Your task to perform on an android device: Open Youtube and go to the subscriptions tab Image 0: 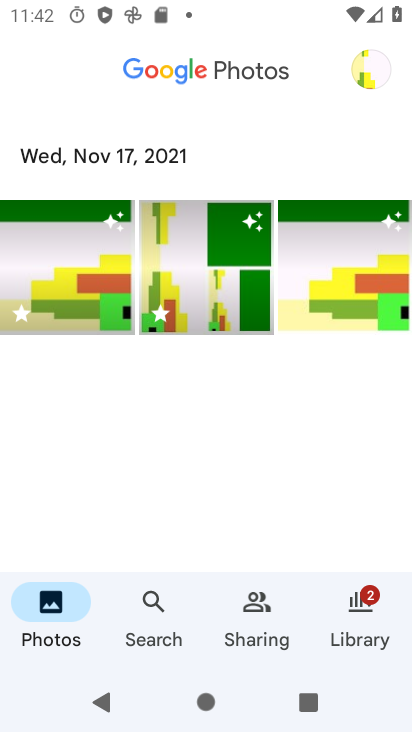
Step 0: press home button
Your task to perform on an android device: Open Youtube and go to the subscriptions tab Image 1: 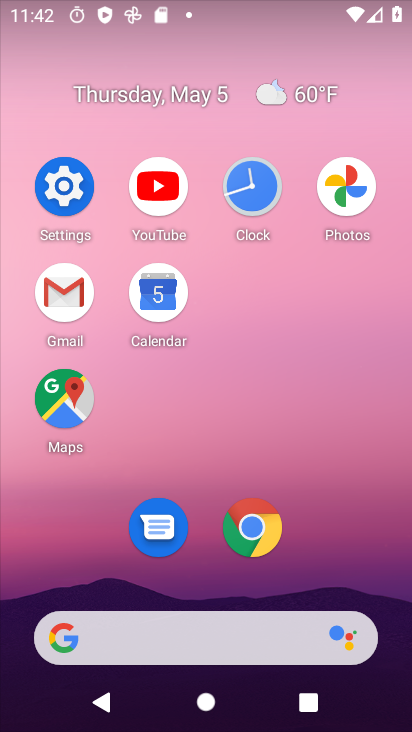
Step 1: drag from (315, 498) to (270, 36)
Your task to perform on an android device: Open Youtube and go to the subscriptions tab Image 2: 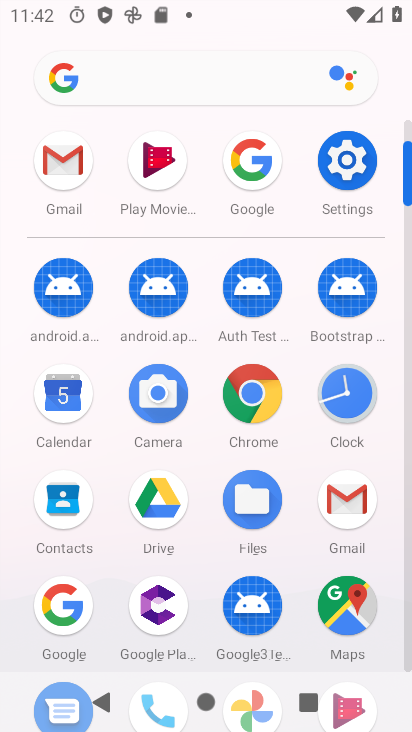
Step 2: drag from (235, 524) to (266, 169)
Your task to perform on an android device: Open Youtube and go to the subscriptions tab Image 3: 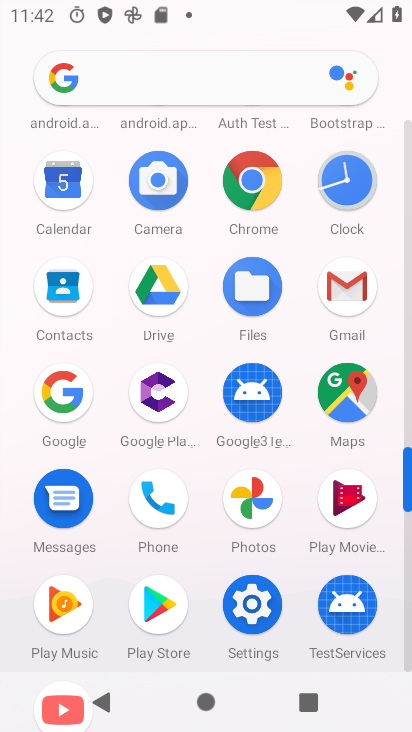
Step 3: click (57, 706)
Your task to perform on an android device: Open Youtube and go to the subscriptions tab Image 4: 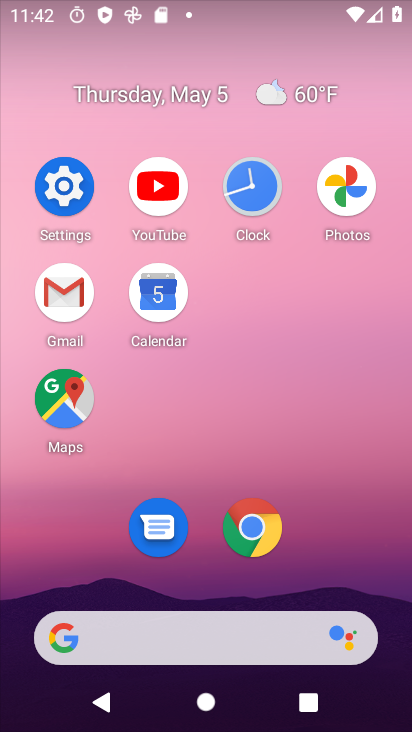
Step 4: drag from (300, 573) to (306, 150)
Your task to perform on an android device: Open Youtube and go to the subscriptions tab Image 5: 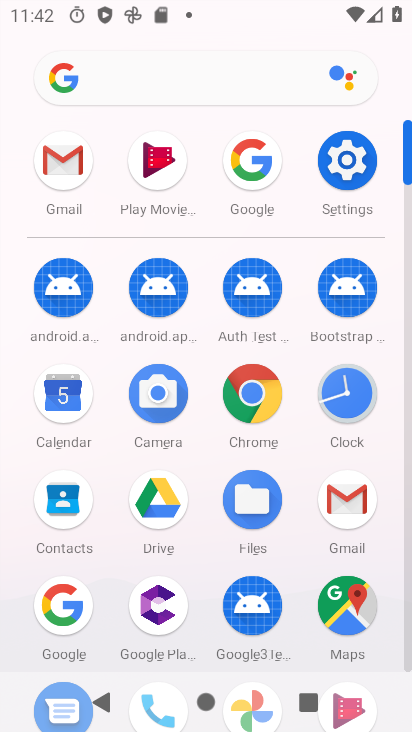
Step 5: drag from (227, 457) to (245, 22)
Your task to perform on an android device: Open Youtube and go to the subscriptions tab Image 6: 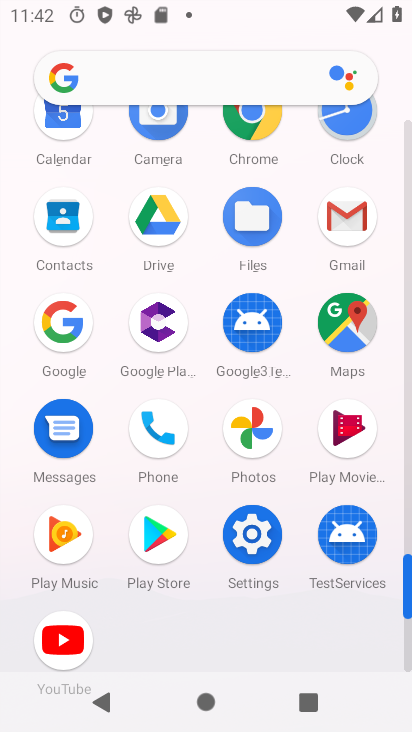
Step 6: click (69, 652)
Your task to perform on an android device: Open Youtube and go to the subscriptions tab Image 7: 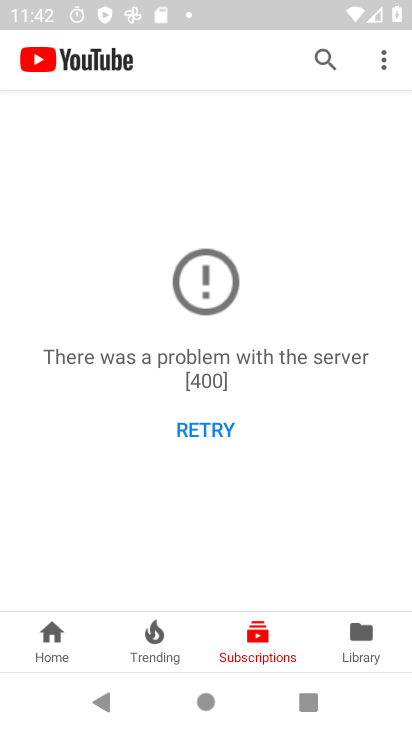
Step 7: task complete